Your task to perform on an android device: open chrome and create a bookmark for the current page Image 0: 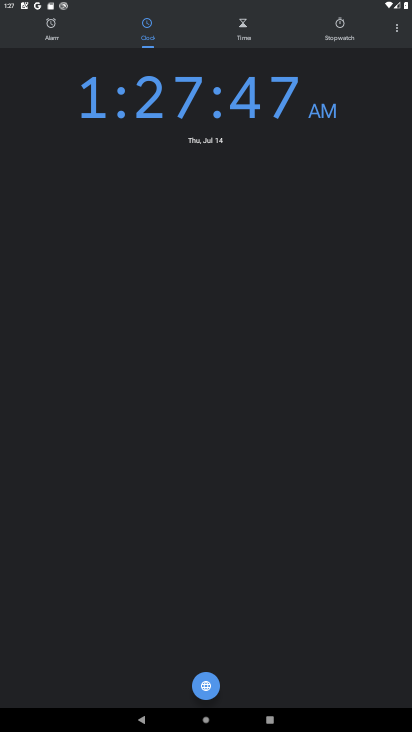
Step 0: press home button
Your task to perform on an android device: open chrome and create a bookmark for the current page Image 1: 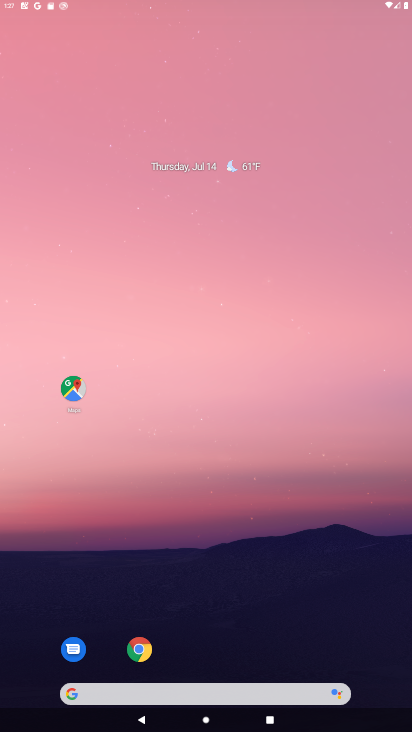
Step 1: drag from (256, 702) to (216, 120)
Your task to perform on an android device: open chrome and create a bookmark for the current page Image 2: 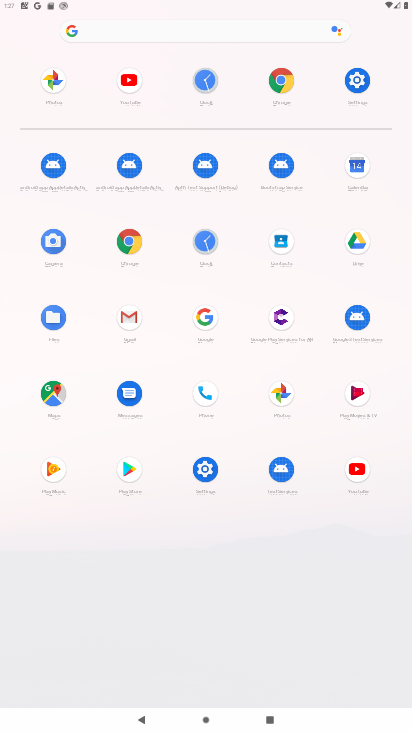
Step 2: click (131, 247)
Your task to perform on an android device: open chrome and create a bookmark for the current page Image 3: 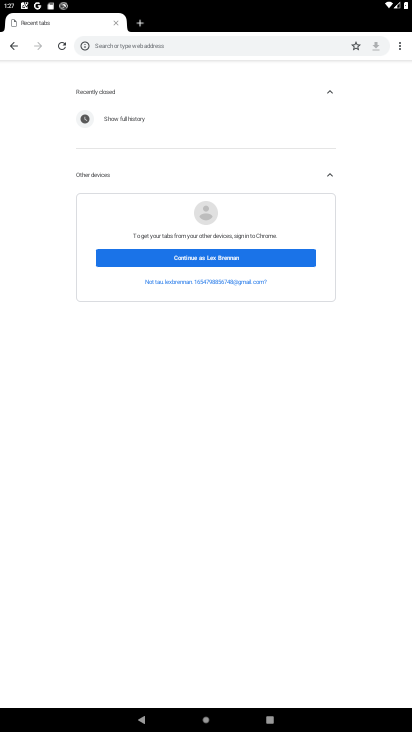
Step 3: drag from (401, 42) to (192, 98)
Your task to perform on an android device: open chrome and create a bookmark for the current page Image 4: 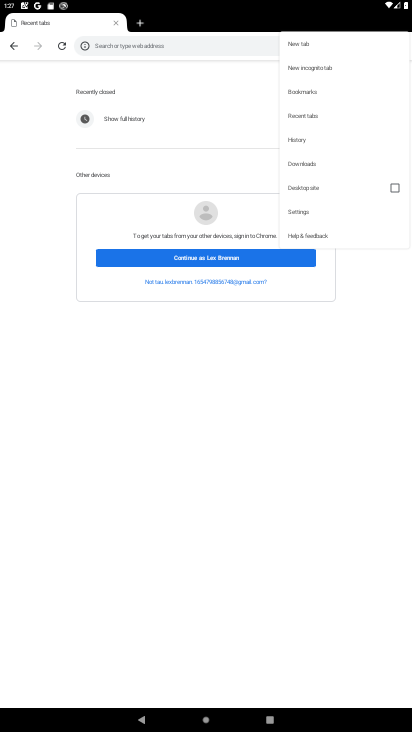
Step 4: click (192, 98)
Your task to perform on an android device: open chrome and create a bookmark for the current page Image 5: 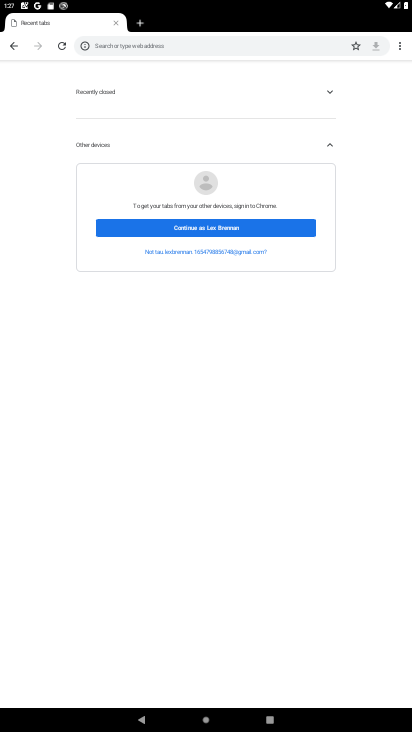
Step 5: click (356, 47)
Your task to perform on an android device: open chrome and create a bookmark for the current page Image 6: 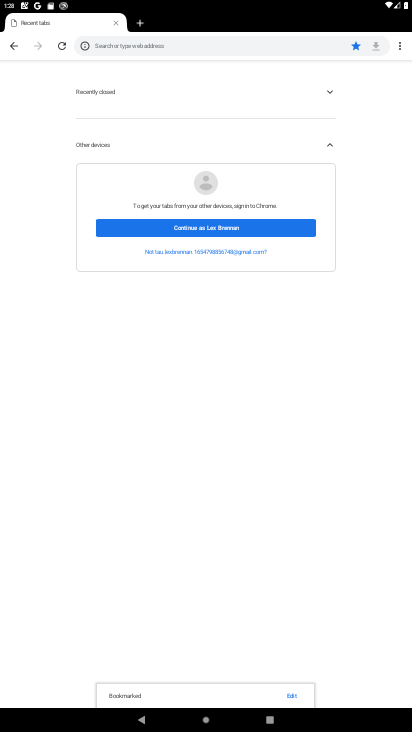
Step 6: task complete